Your task to perform on an android device: open chrome and create a bookmark for the current page Image 0: 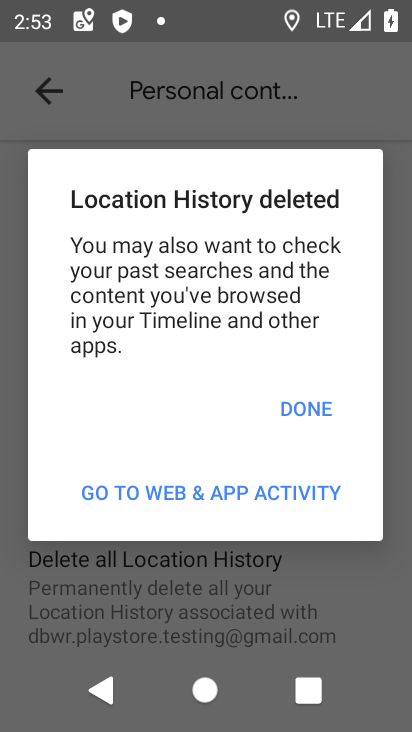
Step 0: press home button
Your task to perform on an android device: open chrome and create a bookmark for the current page Image 1: 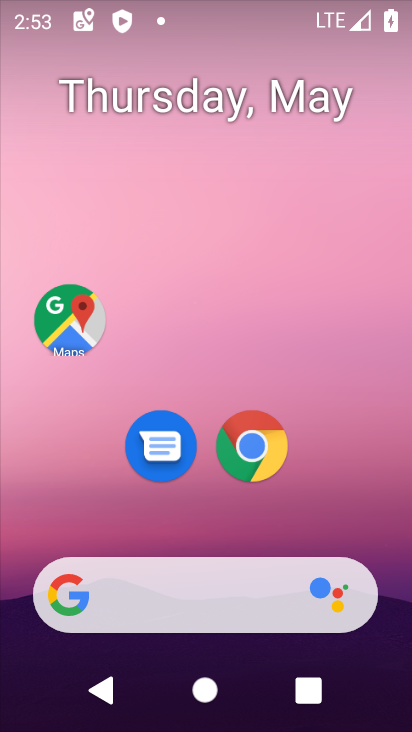
Step 1: click (252, 438)
Your task to perform on an android device: open chrome and create a bookmark for the current page Image 2: 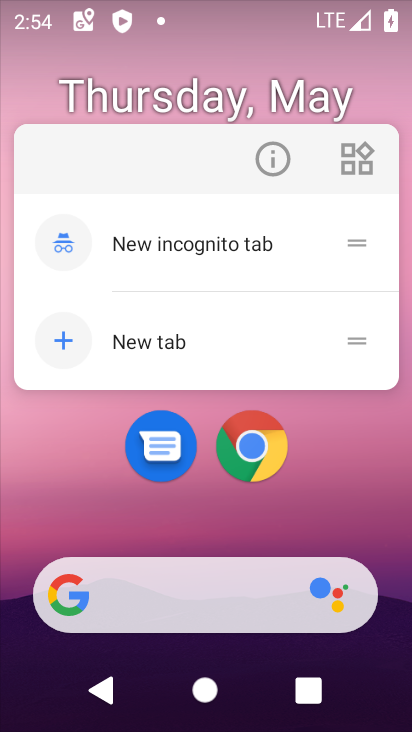
Step 2: click (247, 436)
Your task to perform on an android device: open chrome and create a bookmark for the current page Image 3: 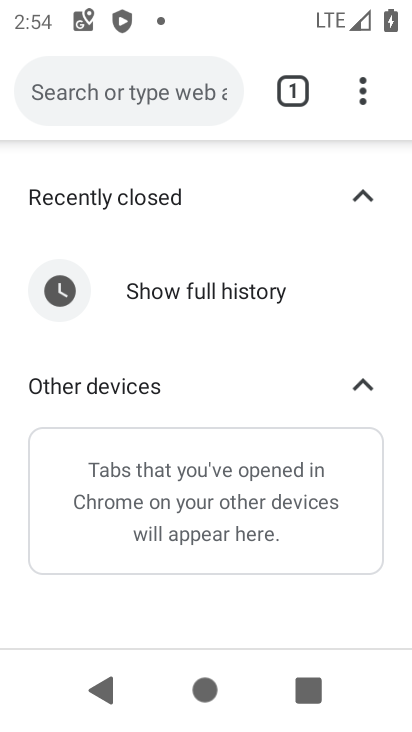
Step 3: click (356, 84)
Your task to perform on an android device: open chrome and create a bookmark for the current page Image 4: 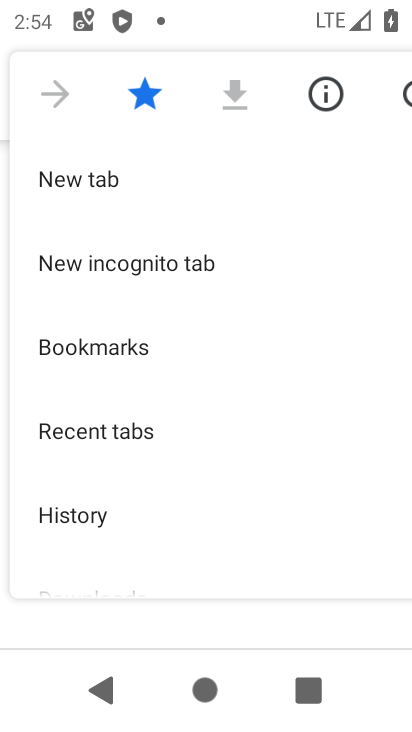
Step 4: task complete